Your task to perform on an android device: open app "Messages" Image 0: 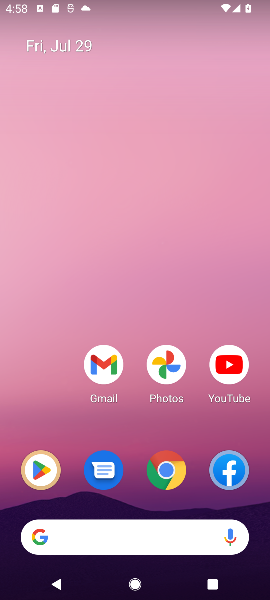
Step 0: click (96, 482)
Your task to perform on an android device: open app "Messages" Image 1: 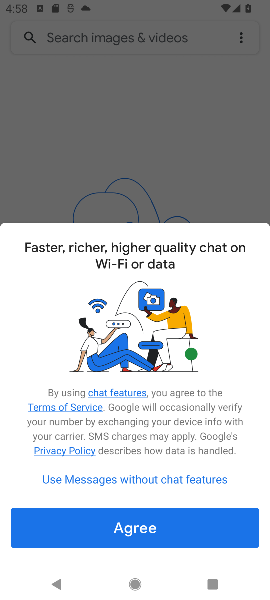
Step 1: press home button
Your task to perform on an android device: open app "Messages" Image 2: 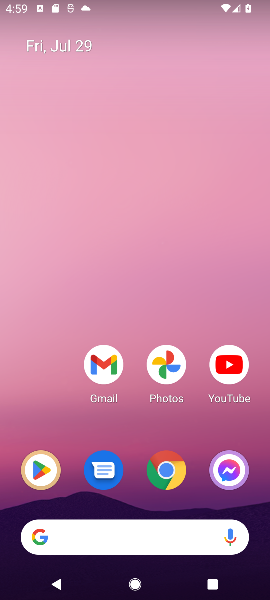
Step 2: click (107, 459)
Your task to perform on an android device: open app "Messages" Image 3: 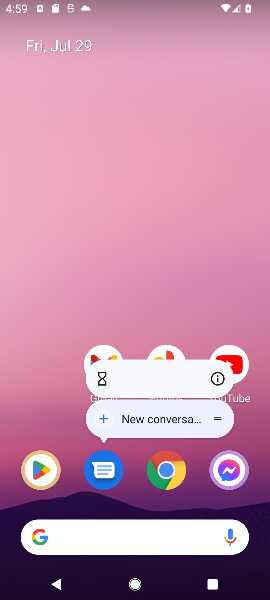
Step 3: click (109, 475)
Your task to perform on an android device: open app "Messages" Image 4: 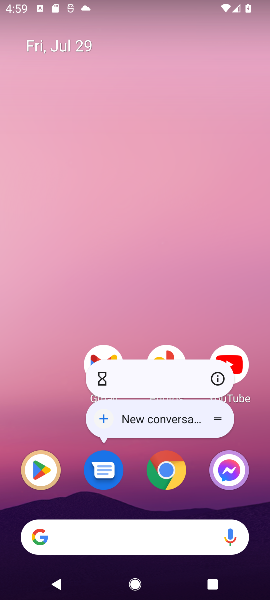
Step 4: click (109, 475)
Your task to perform on an android device: open app "Messages" Image 5: 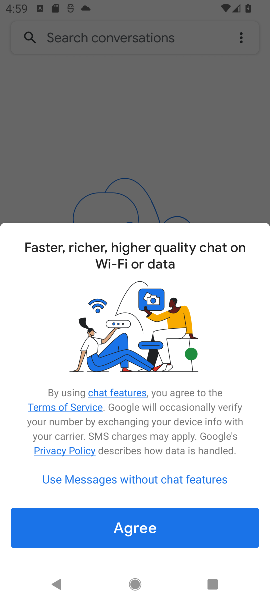
Step 5: click (217, 528)
Your task to perform on an android device: open app "Messages" Image 6: 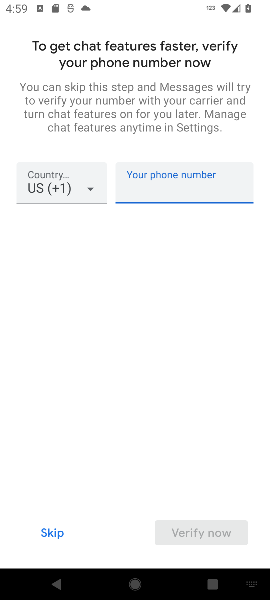
Step 6: click (36, 532)
Your task to perform on an android device: open app "Messages" Image 7: 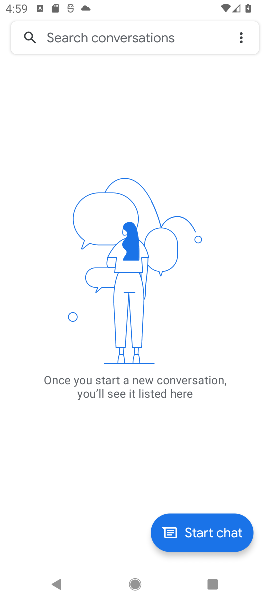
Step 7: task complete